Your task to perform on an android device: Open sound settings Image 0: 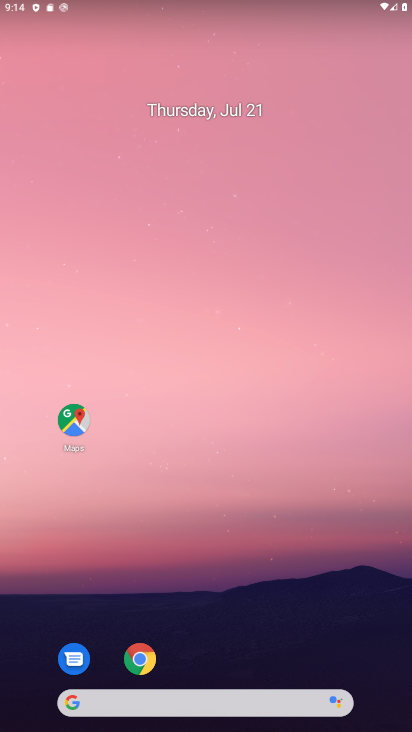
Step 0: drag from (226, 686) to (153, 215)
Your task to perform on an android device: Open sound settings Image 1: 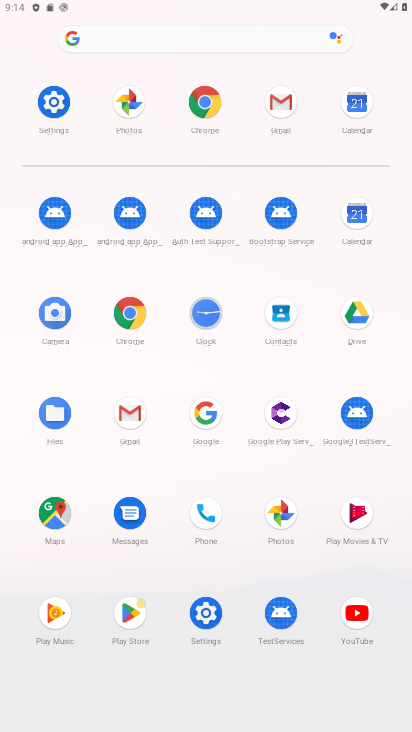
Step 1: click (201, 599)
Your task to perform on an android device: Open sound settings Image 2: 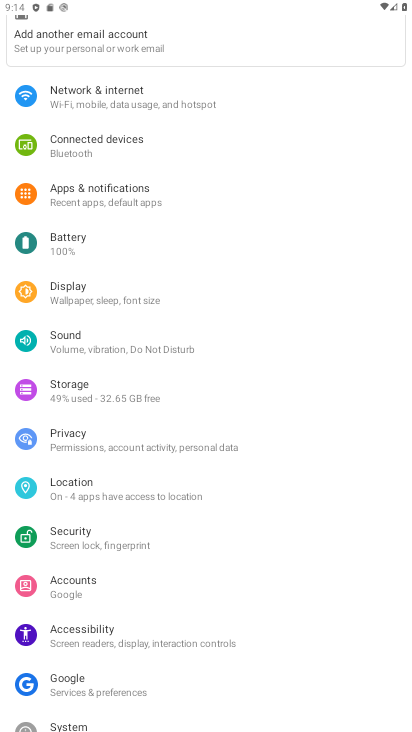
Step 2: click (61, 349)
Your task to perform on an android device: Open sound settings Image 3: 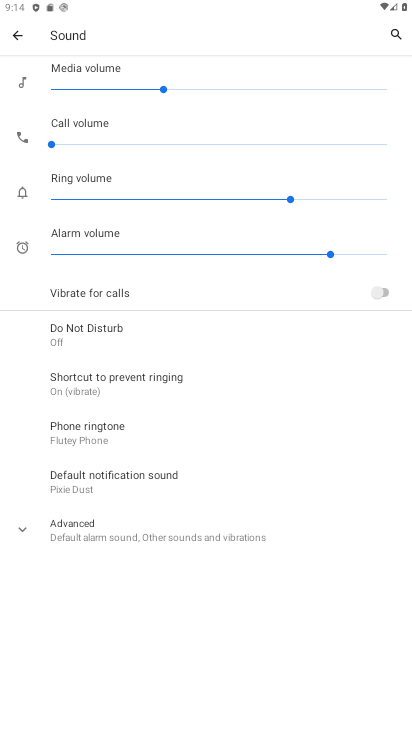
Step 3: task complete